Your task to perform on an android device: find snoozed emails in the gmail app Image 0: 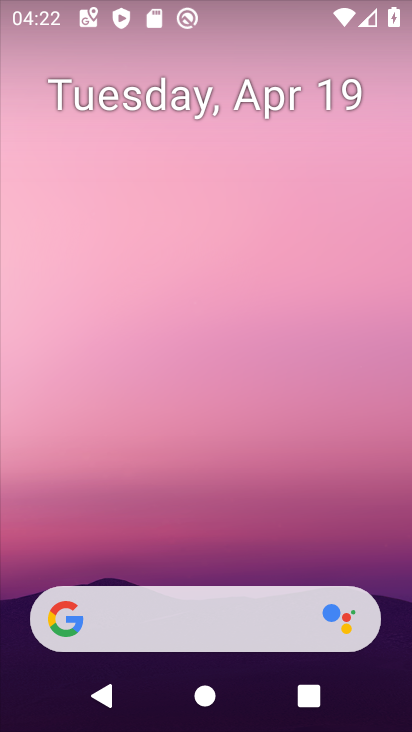
Step 0: drag from (238, 537) to (275, 70)
Your task to perform on an android device: find snoozed emails in the gmail app Image 1: 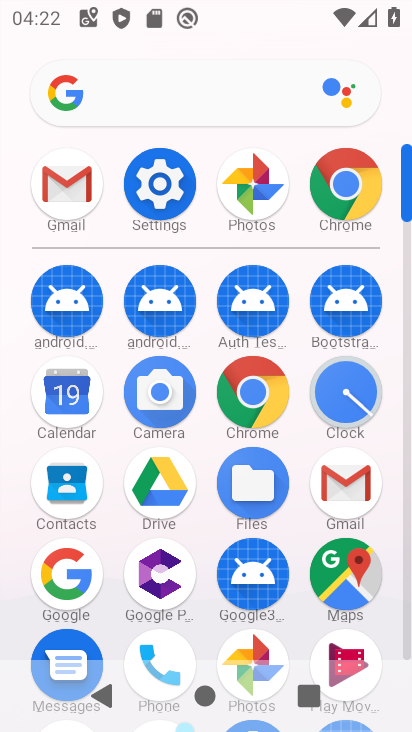
Step 1: click (70, 184)
Your task to perform on an android device: find snoozed emails in the gmail app Image 2: 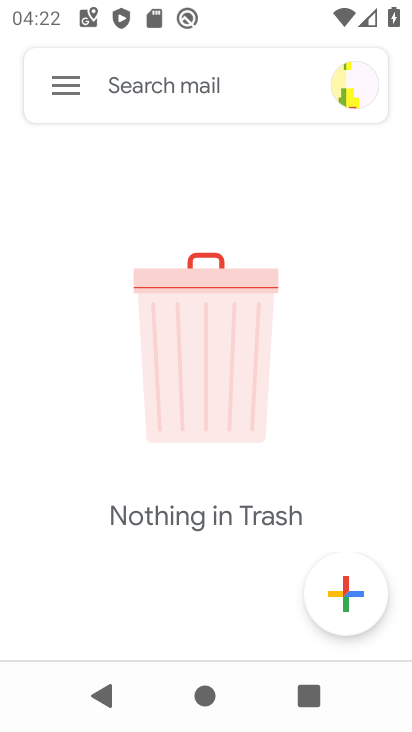
Step 2: click (79, 91)
Your task to perform on an android device: find snoozed emails in the gmail app Image 3: 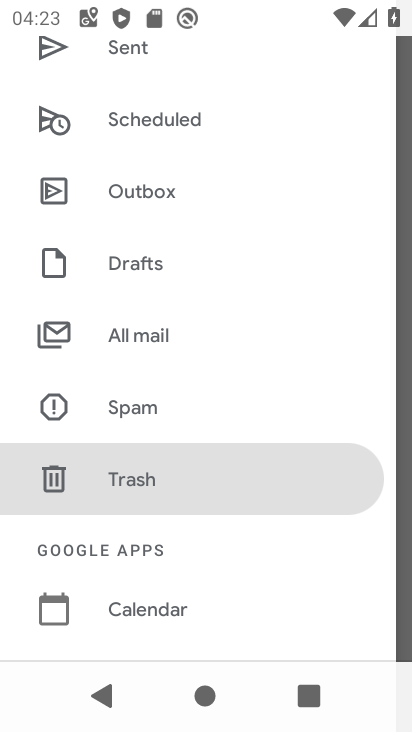
Step 3: drag from (224, 300) to (239, 394)
Your task to perform on an android device: find snoozed emails in the gmail app Image 4: 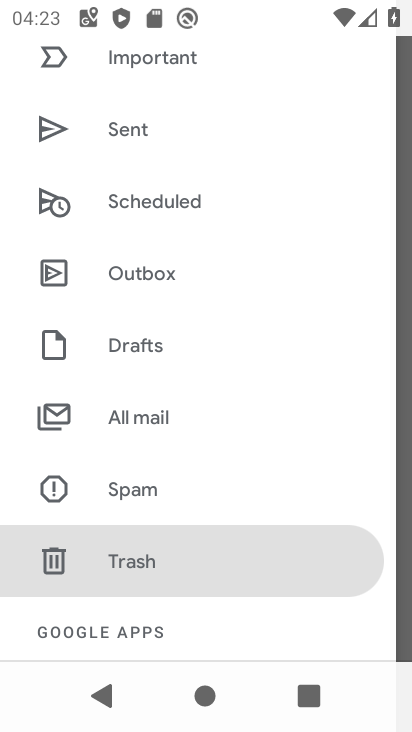
Step 4: drag from (223, 305) to (262, 367)
Your task to perform on an android device: find snoozed emails in the gmail app Image 5: 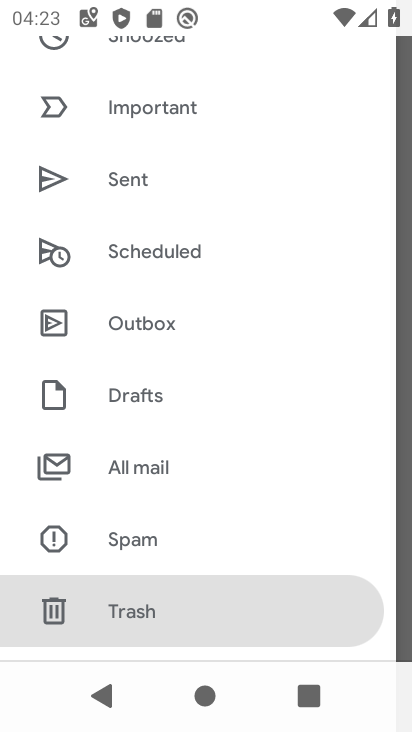
Step 5: drag from (238, 272) to (249, 333)
Your task to perform on an android device: find snoozed emails in the gmail app Image 6: 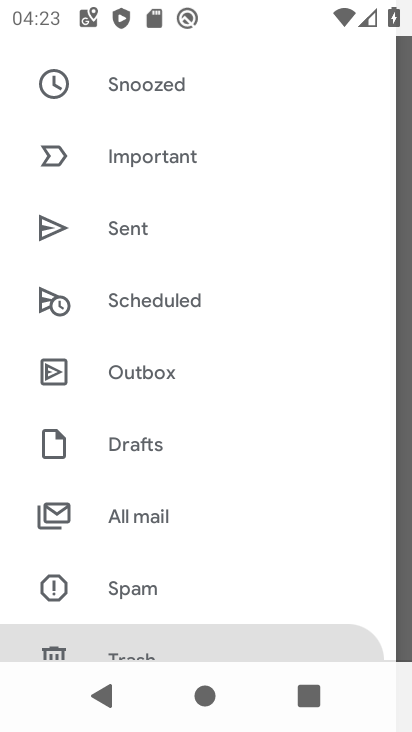
Step 6: drag from (228, 224) to (249, 317)
Your task to perform on an android device: find snoozed emails in the gmail app Image 7: 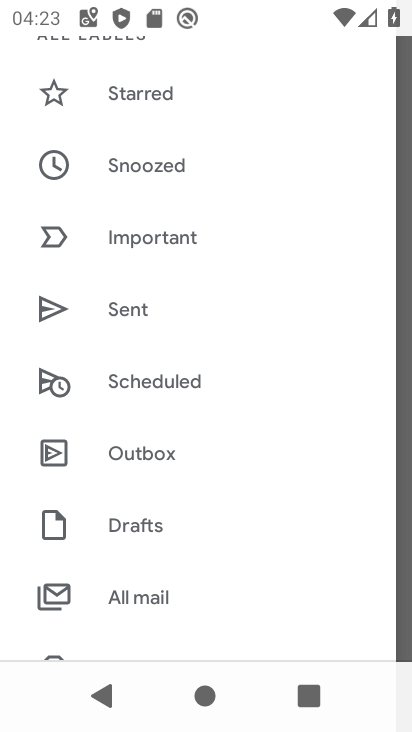
Step 7: click (178, 177)
Your task to perform on an android device: find snoozed emails in the gmail app Image 8: 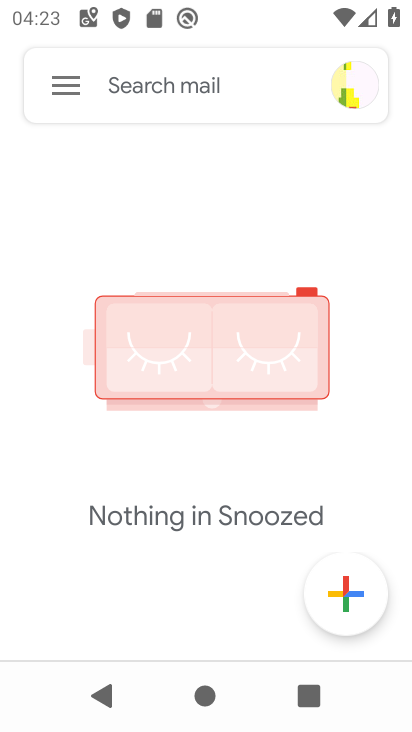
Step 8: task complete